Your task to perform on an android device: change the clock display to analog Image 0: 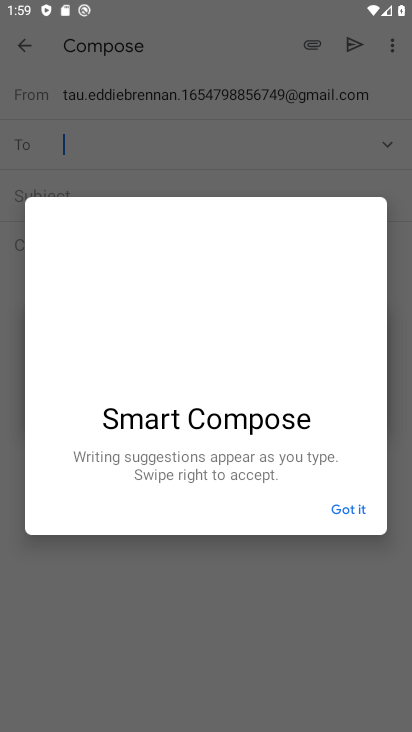
Step 0: press home button
Your task to perform on an android device: change the clock display to analog Image 1: 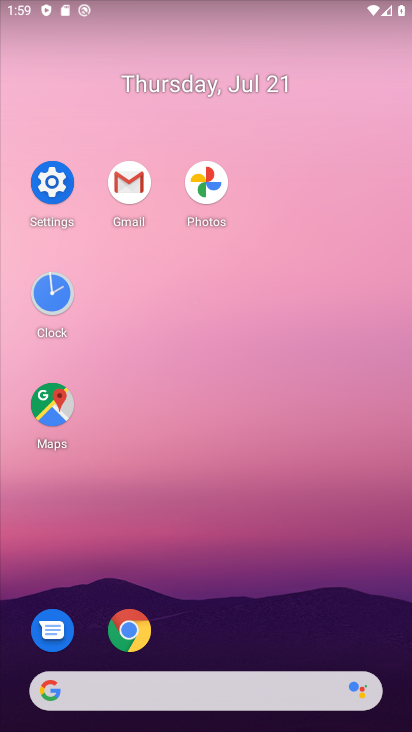
Step 1: click (49, 279)
Your task to perform on an android device: change the clock display to analog Image 2: 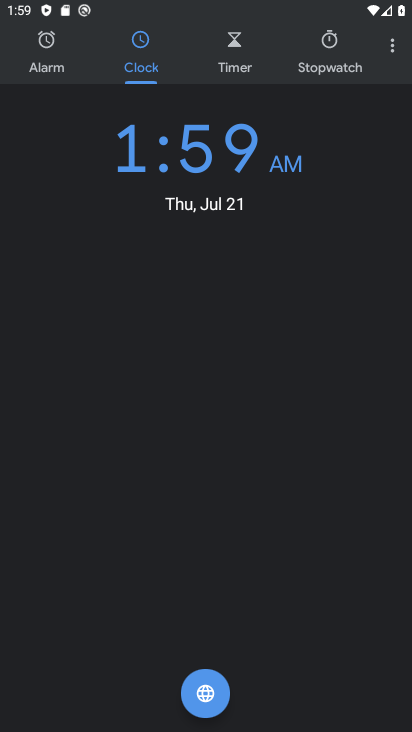
Step 2: click (395, 49)
Your task to perform on an android device: change the clock display to analog Image 3: 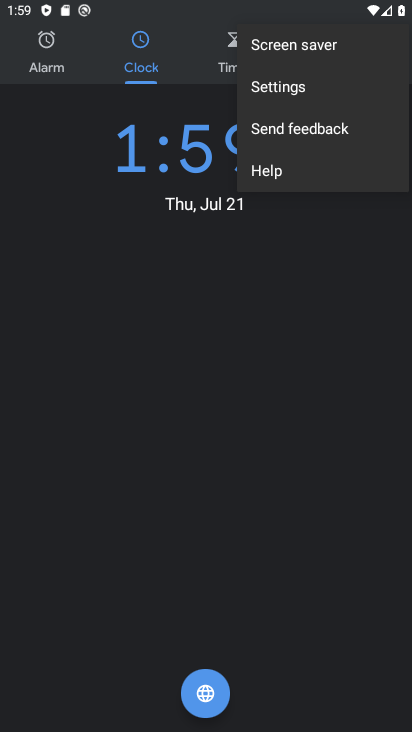
Step 3: click (332, 79)
Your task to perform on an android device: change the clock display to analog Image 4: 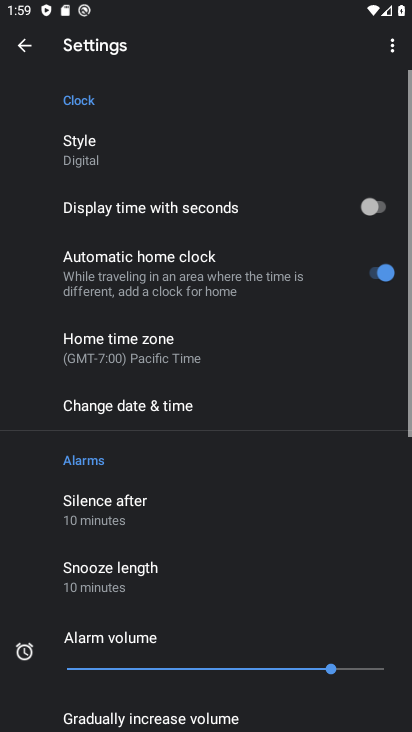
Step 4: click (110, 154)
Your task to perform on an android device: change the clock display to analog Image 5: 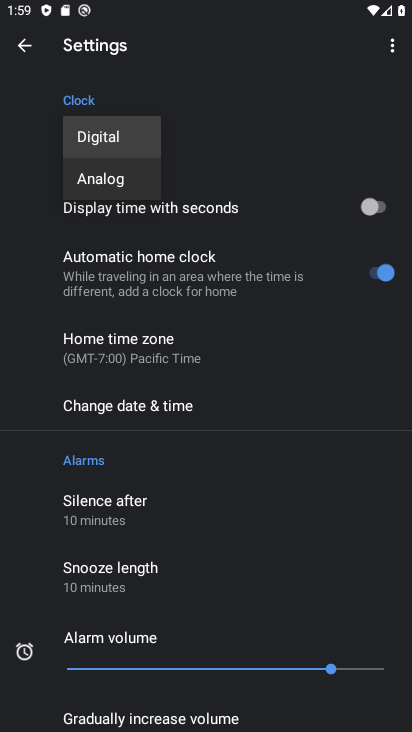
Step 5: click (127, 179)
Your task to perform on an android device: change the clock display to analog Image 6: 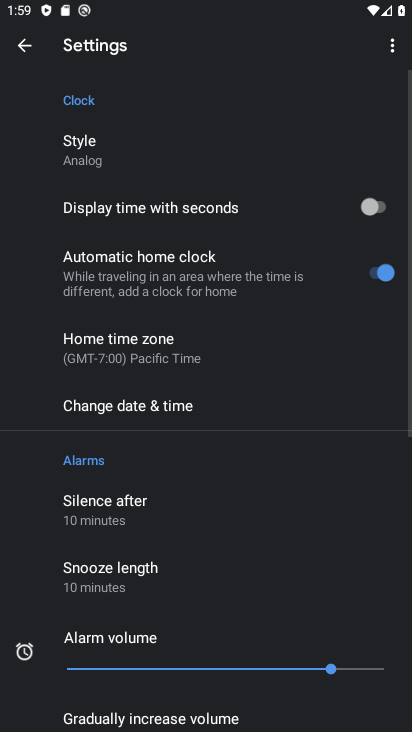
Step 6: task complete